Your task to perform on an android device: turn off improve location accuracy Image 0: 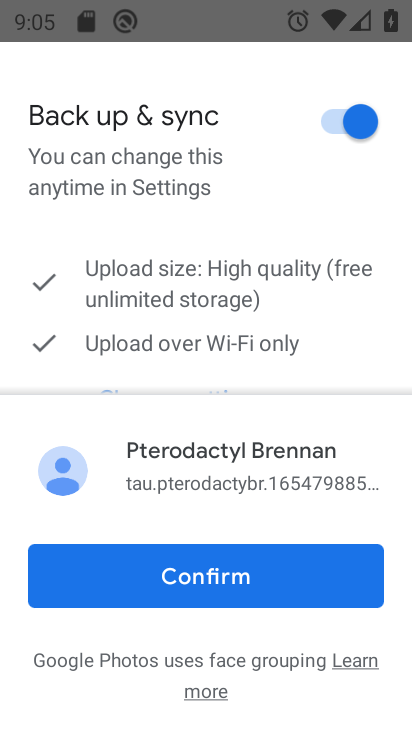
Step 0: press home button
Your task to perform on an android device: turn off improve location accuracy Image 1: 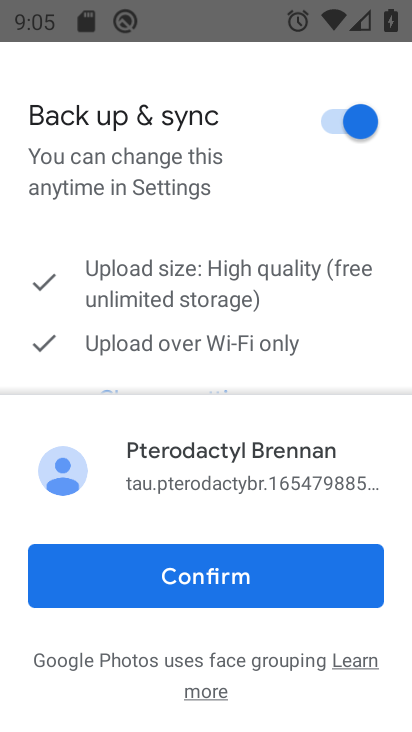
Step 1: press home button
Your task to perform on an android device: turn off improve location accuracy Image 2: 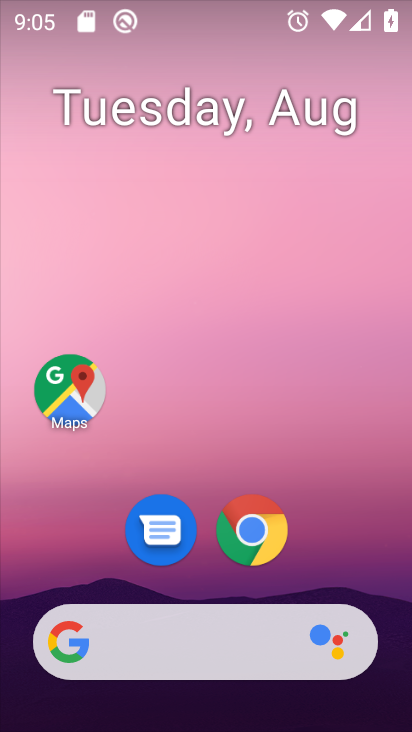
Step 2: drag from (370, 537) to (292, 68)
Your task to perform on an android device: turn off improve location accuracy Image 3: 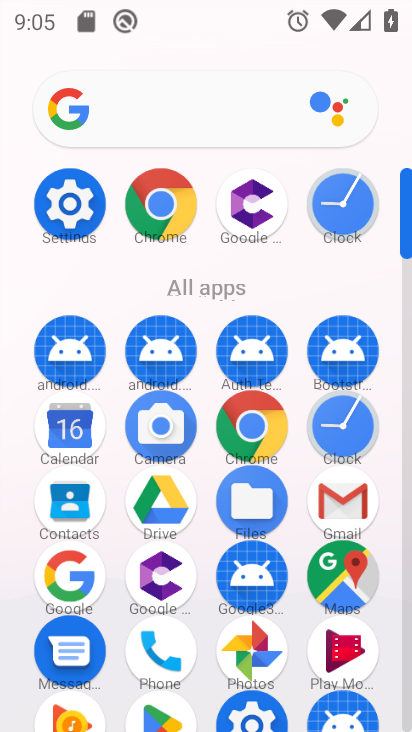
Step 3: click (245, 709)
Your task to perform on an android device: turn off improve location accuracy Image 4: 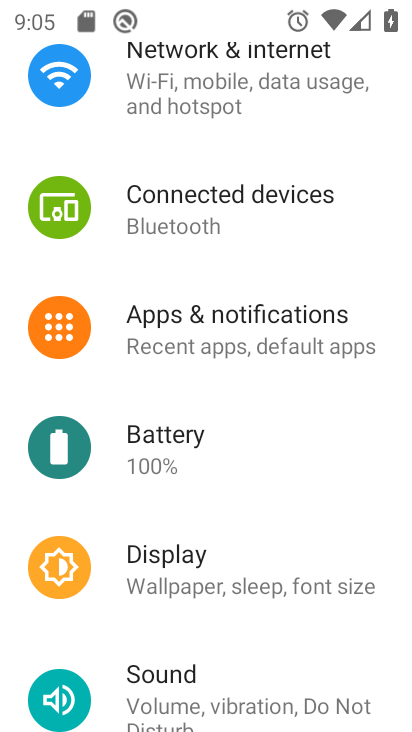
Step 4: drag from (223, 641) to (255, 199)
Your task to perform on an android device: turn off improve location accuracy Image 5: 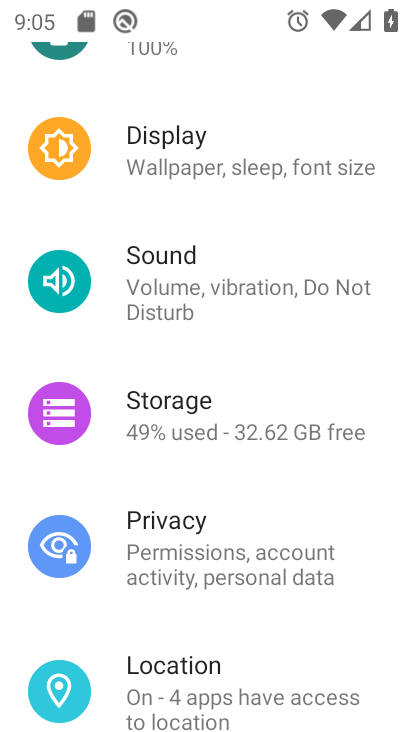
Step 5: click (151, 657)
Your task to perform on an android device: turn off improve location accuracy Image 6: 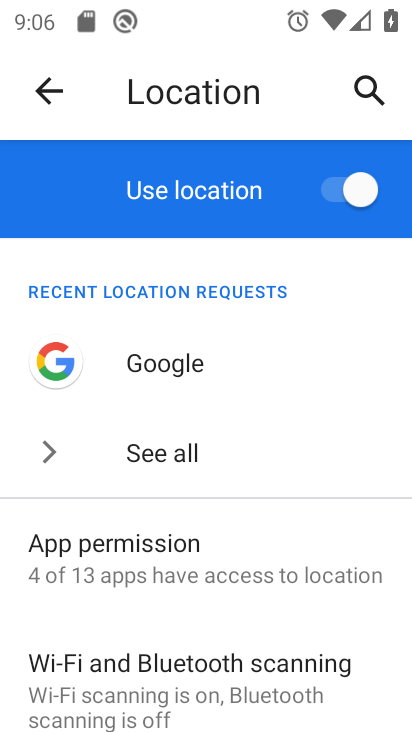
Step 6: drag from (271, 622) to (267, 174)
Your task to perform on an android device: turn off improve location accuracy Image 7: 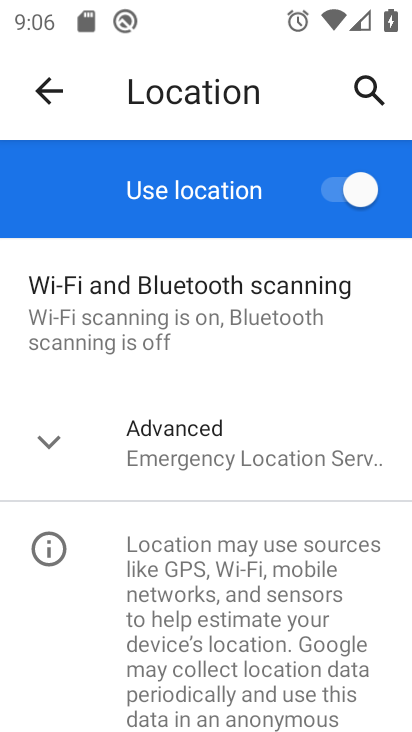
Step 7: click (249, 435)
Your task to perform on an android device: turn off improve location accuracy Image 8: 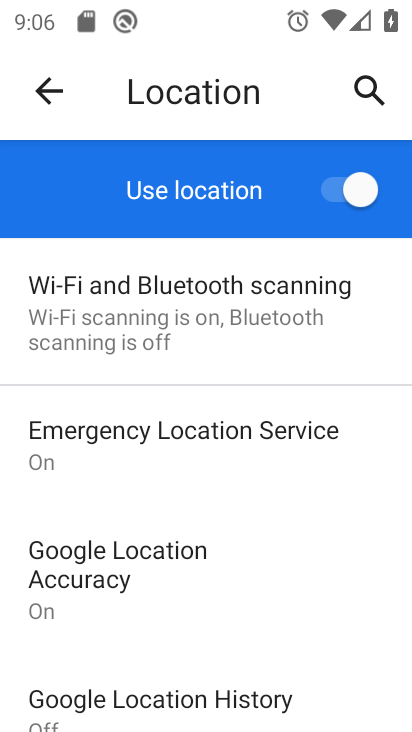
Step 8: click (269, 703)
Your task to perform on an android device: turn off improve location accuracy Image 9: 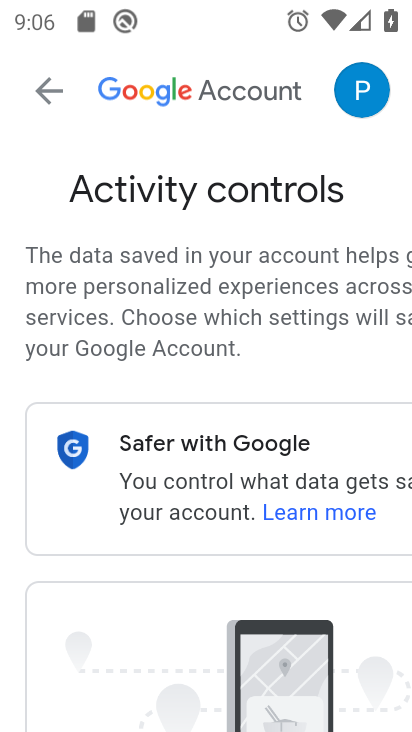
Step 9: drag from (198, 652) to (209, 137)
Your task to perform on an android device: turn off improve location accuracy Image 10: 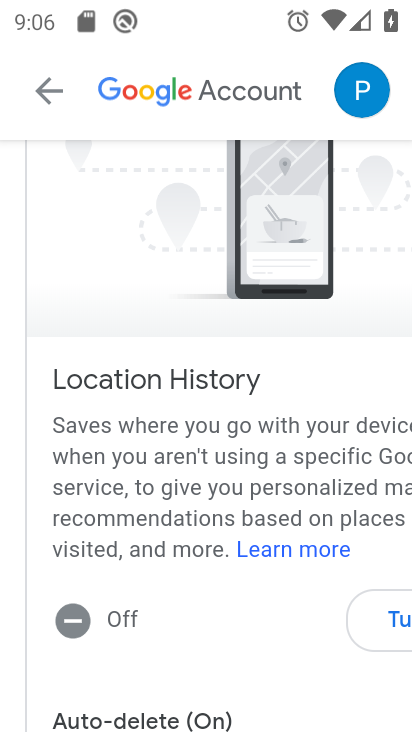
Step 10: click (114, 611)
Your task to perform on an android device: turn off improve location accuracy Image 11: 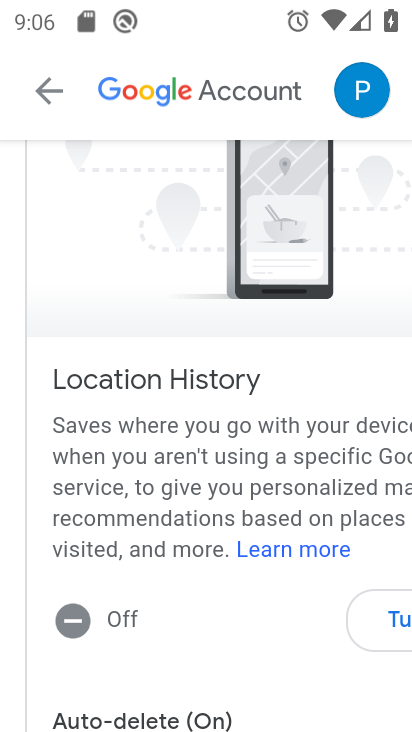
Step 11: task complete